Your task to perform on an android device: Go to Google maps Image 0: 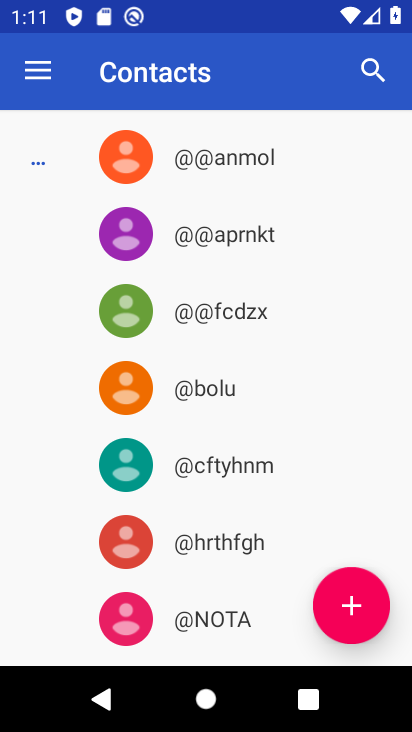
Step 0: press home button
Your task to perform on an android device: Go to Google maps Image 1: 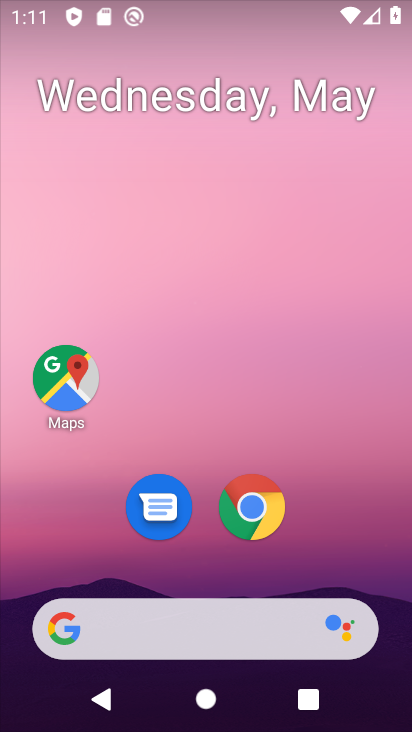
Step 1: click (78, 385)
Your task to perform on an android device: Go to Google maps Image 2: 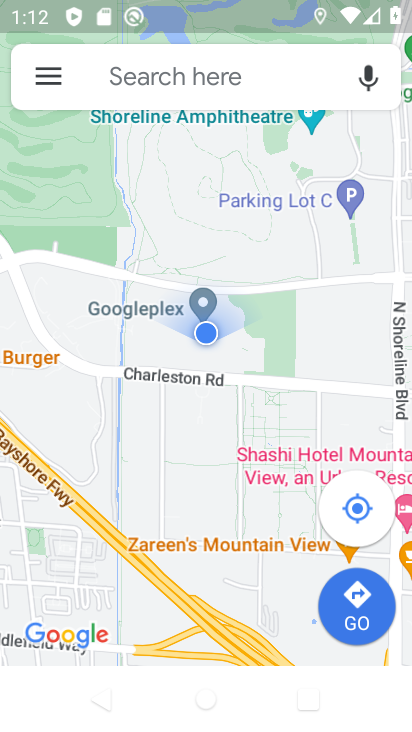
Step 2: task complete